Your task to perform on an android device: turn on javascript in the chrome app Image 0: 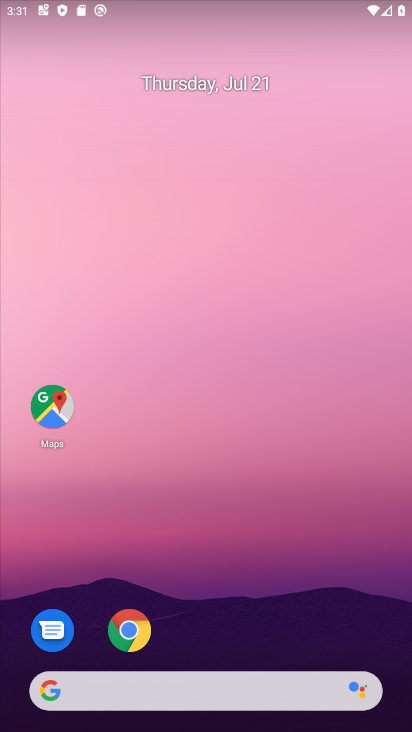
Step 0: click (137, 635)
Your task to perform on an android device: turn on javascript in the chrome app Image 1: 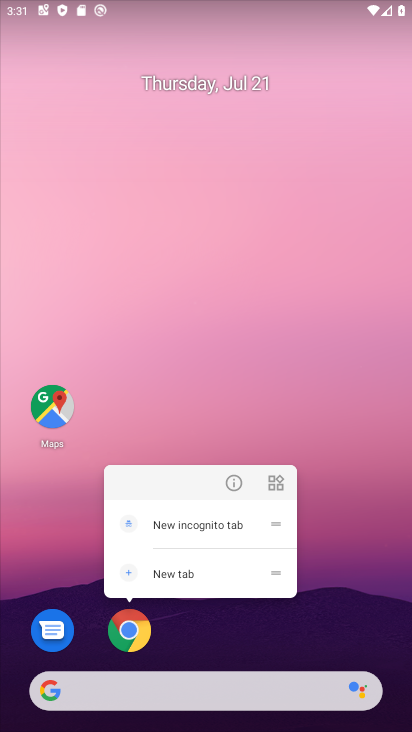
Step 1: click (126, 631)
Your task to perform on an android device: turn on javascript in the chrome app Image 2: 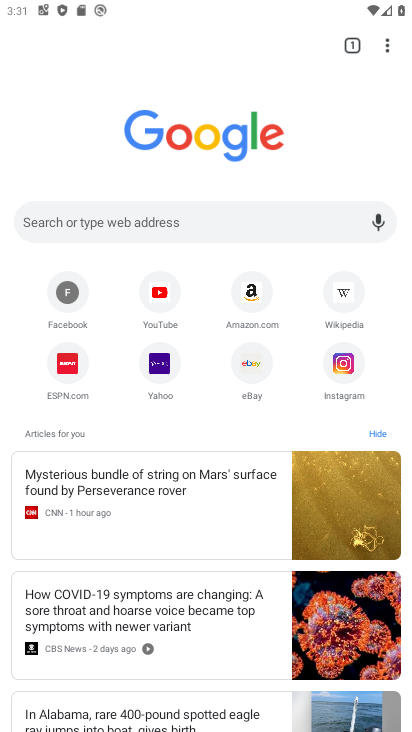
Step 2: drag from (385, 45) to (212, 368)
Your task to perform on an android device: turn on javascript in the chrome app Image 3: 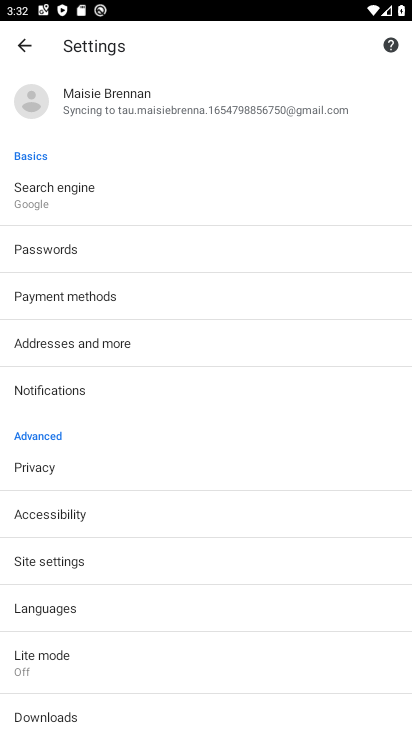
Step 3: click (46, 551)
Your task to perform on an android device: turn on javascript in the chrome app Image 4: 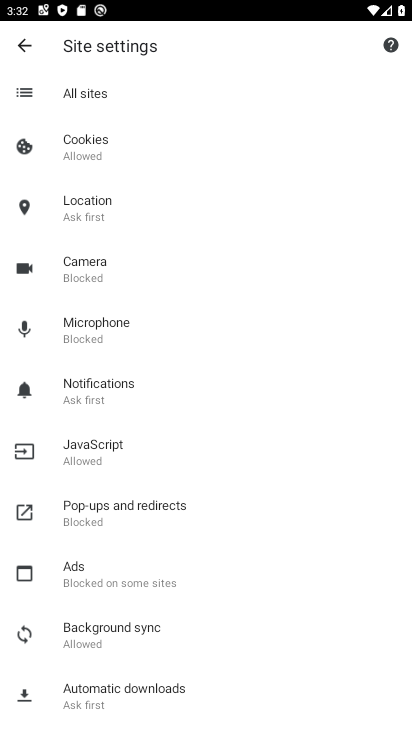
Step 4: click (140, 456)
Your task to perform on an android device: turn on javascript in the chrome app Image 5: 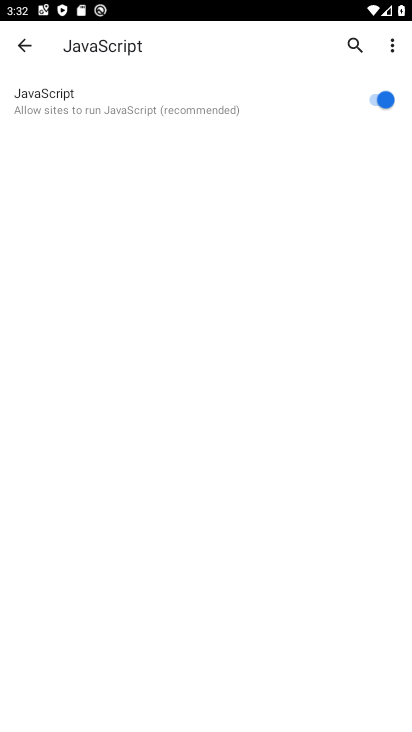
Step 5: task complete